Your task to perform on an android device: choose inbox layout in the gmail app Image 0: 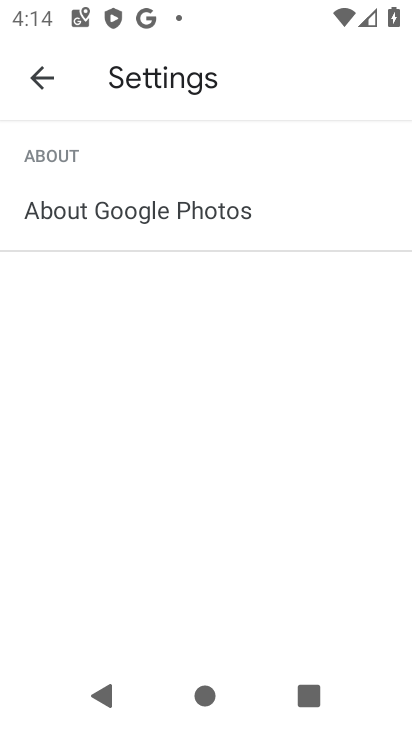
Step 0: press home button
Your task to perform on an android device: choose inbox layout in the gmail app Image 1: 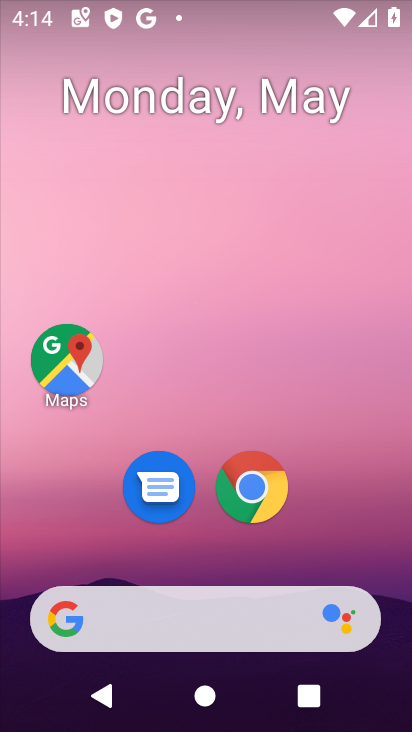
Step 1: drag from (350, 582) to (360, 10)
Your task to perform on an android device: choose inbox layout in the gmail app Image 2: 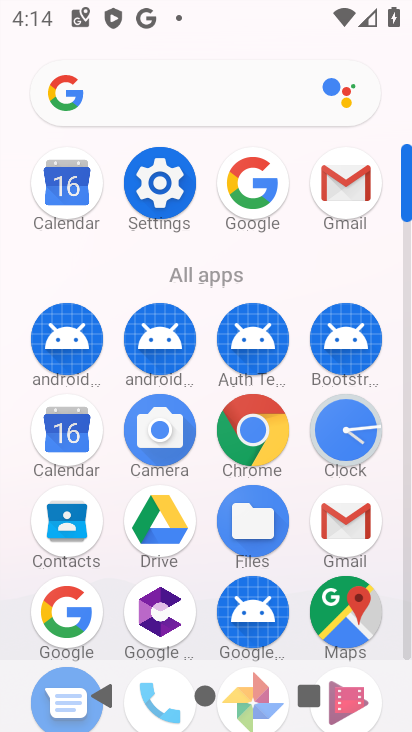
Step 2: click (349, 181)
Your task to perform on an android device: choose inbox layout in the gmail app Image 3: 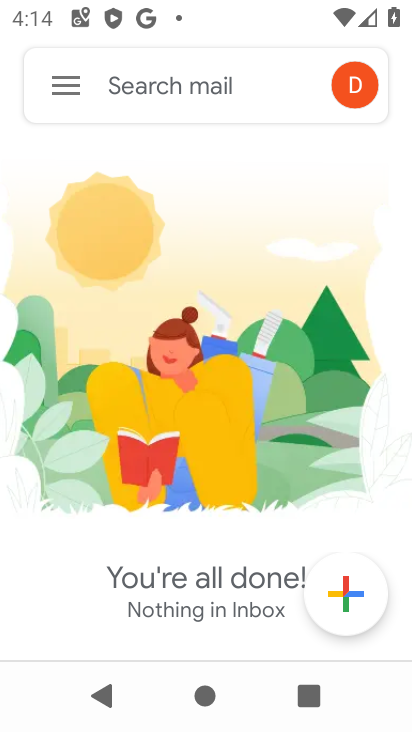
Step 3: click (59, 87)
Your task to perform on an android device: choose inbox layout in the gmail app Image 4: 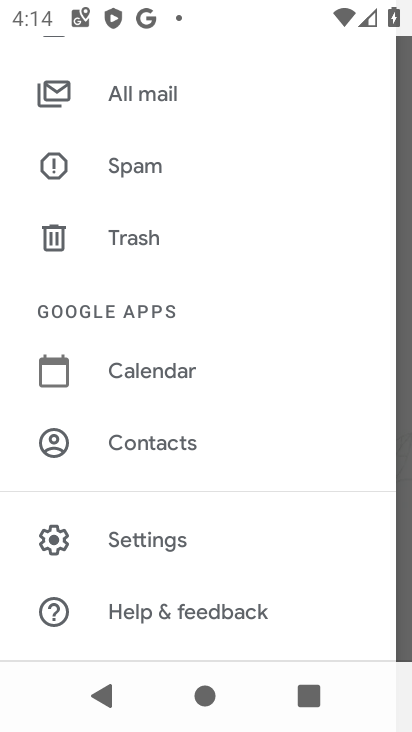
Step 4: click (116, 535)
Your task to perform on an android device: choose inbox layout in the gmail app Image 5: 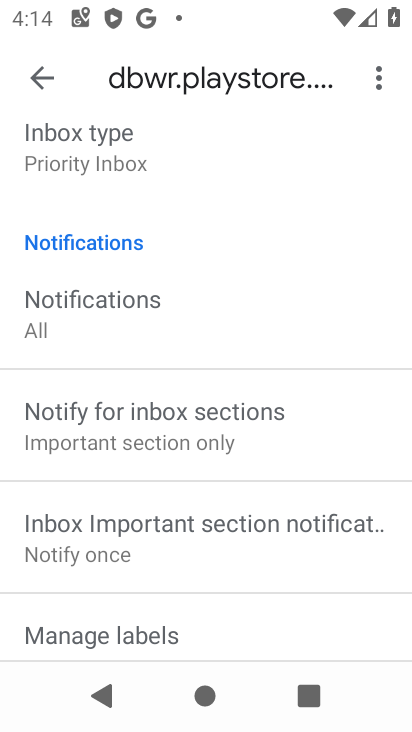
Step 5: click (80, 162)
Your task to perform on an android device: choose inbox layout in the gmail app Image 6: 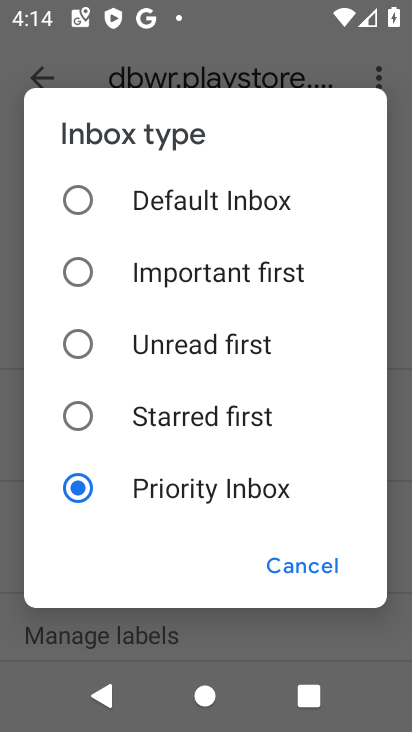
Step 6: click (79, 270)
Your task to perform on an android device: choose inbox layout in the gmail app Image 7: 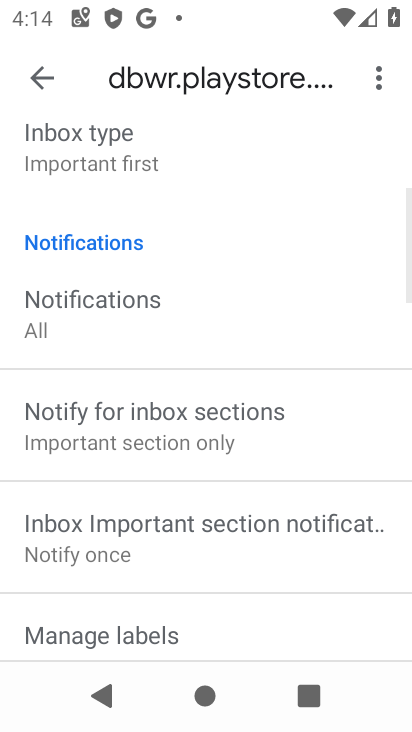
Step 7: task complete